Your task to perform on an android device: refresh tabs in the chrome app Image 0: 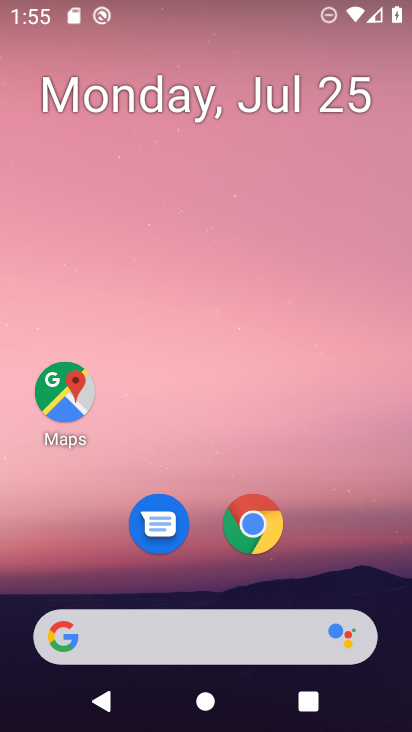
Step 0: click (256, 531)
Your task to perform on an android device: refresh tabs in the chrome app Image 1: 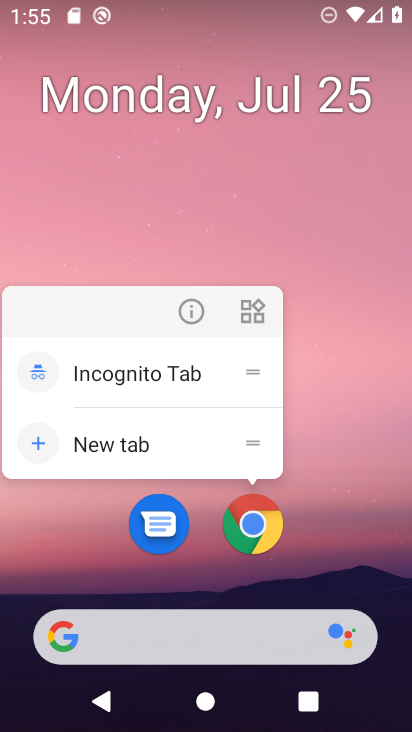
Step 1: click (248, 537)
Your task to perform on an android device: refresh tabs in the chrome app Image 2: 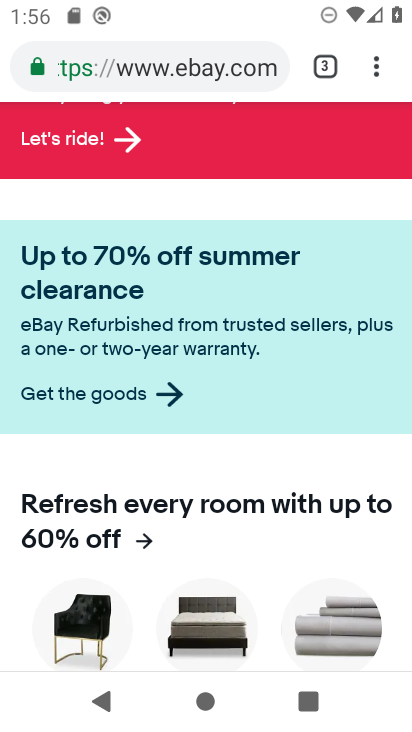
Step 2: click (372, 85)
Your task to perform on an android device: refresh tabs in the chrome app Image 3: 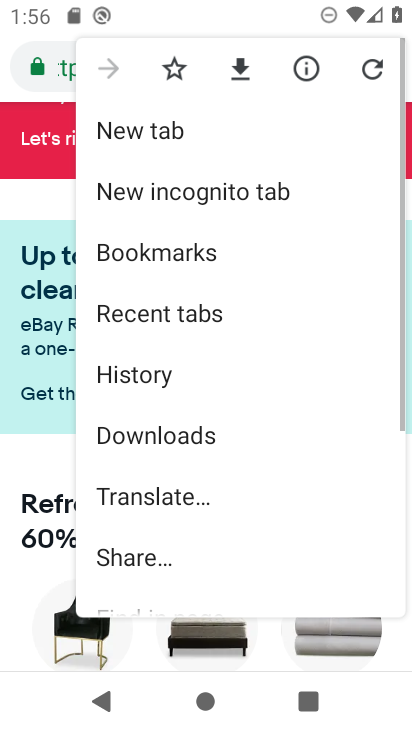
Step 3: click (368, 69)
Your task to perform on an android device: refresh tabs in the chrome app Image 4: 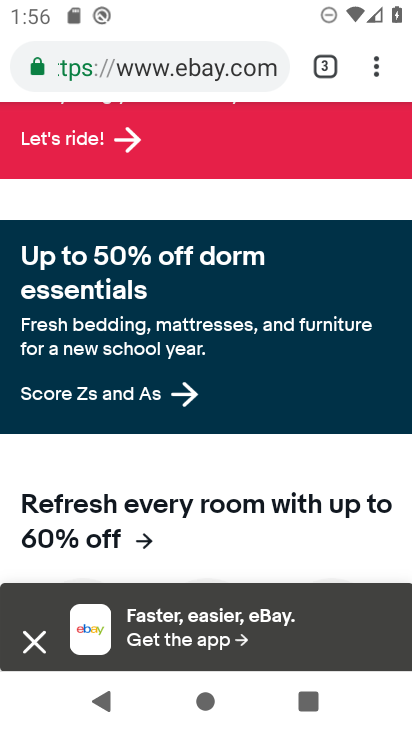
Step 4: task complete